Your task to perform on an android device: Open Chrome and go to settings Image 0: 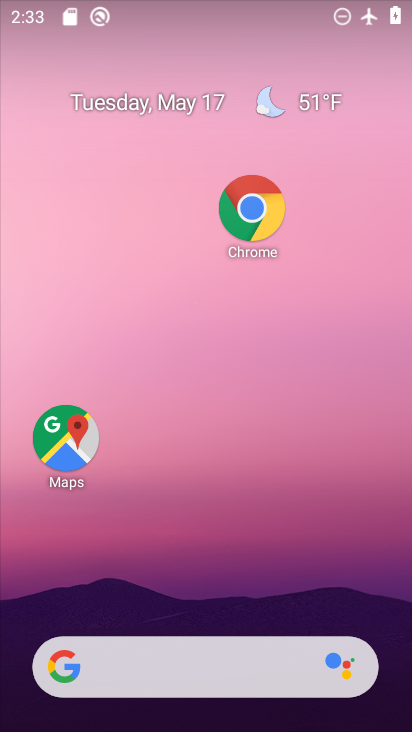
Step 0: click (259, 226)
Your task to perform on an android device: Open Chrome and go to settings Image 1: 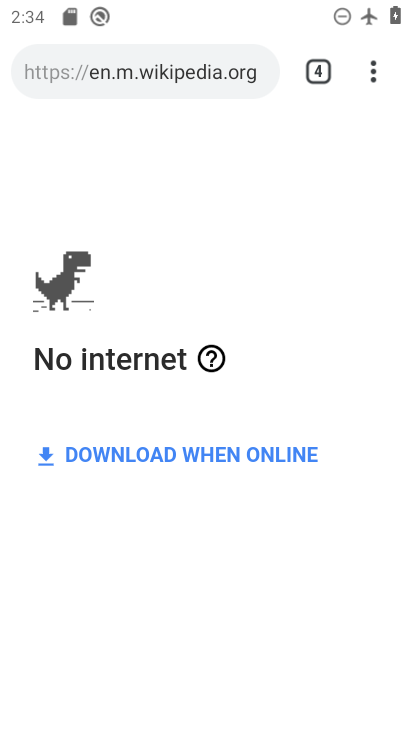
Step 1: click (368, 81)
Your task to perform on an android device: Open Chrome and go to settings Image 2: 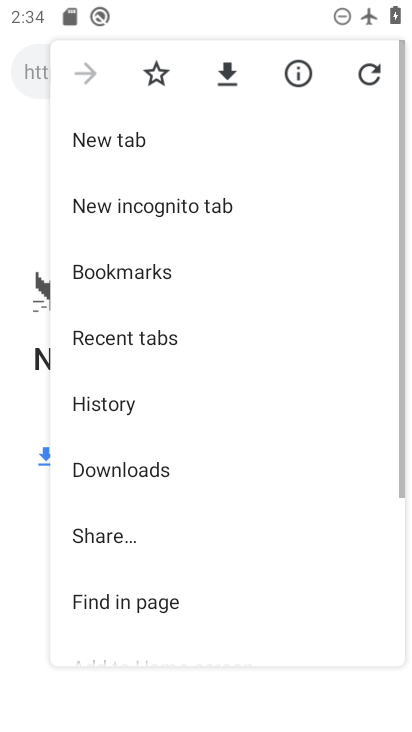
Step 2: drag from (201, 523) to (177, 91)
Your task to perform on an android device: Open Chrome and go to settings Image 3: 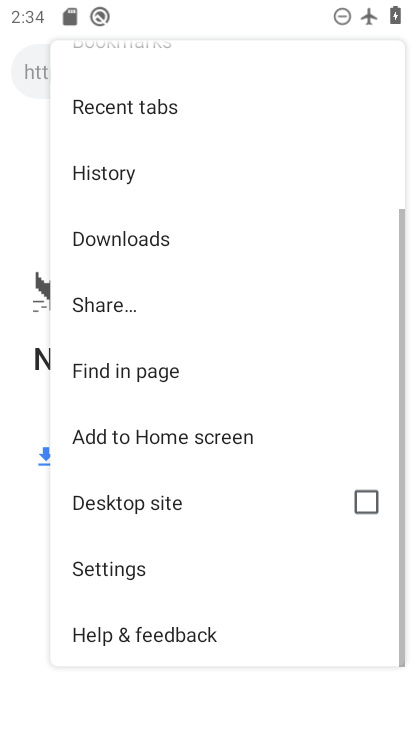
Step 3: click (138, 569)
Your task to perform on an android device: Open Chrome and go to settings Image 4: 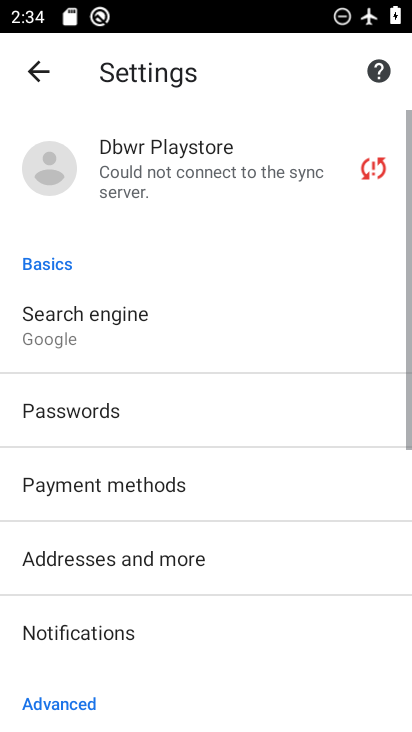
Step 4: task complete